Your task to perform on an android device: Open settings Image 0: 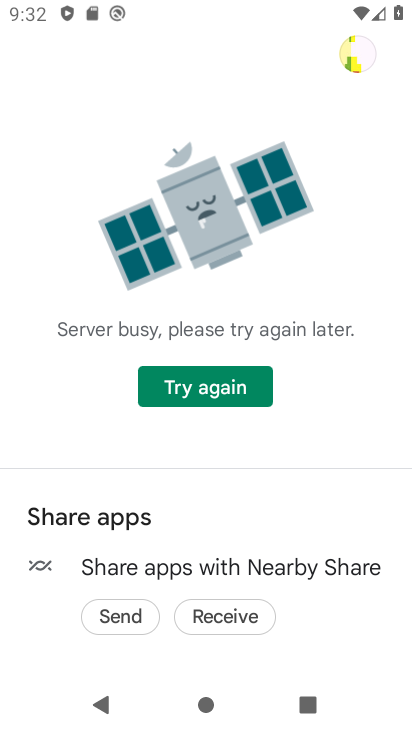
Step 0: press home button
Your task to perform on an android device: Open settings Image 1: 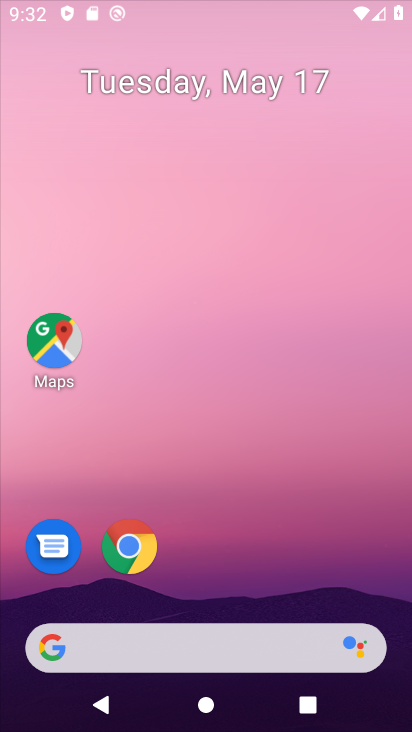
Step 1: press home button
Your task to perform on an android device: Open settings Image 2: 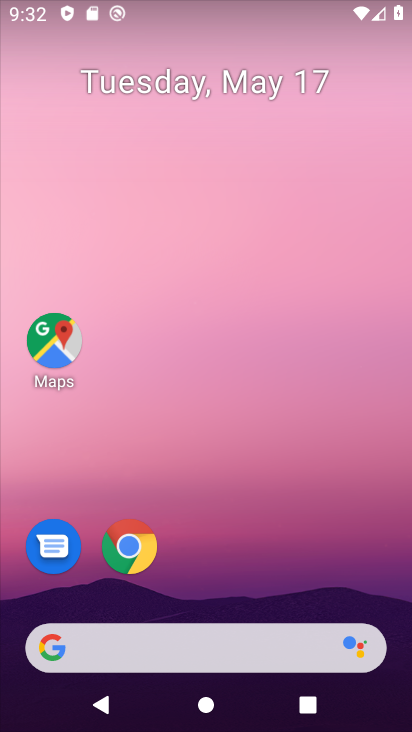
Step 2: drag from (245, 551) to (295, 167)
Your task to perform on an android device: Open settings Image 3: 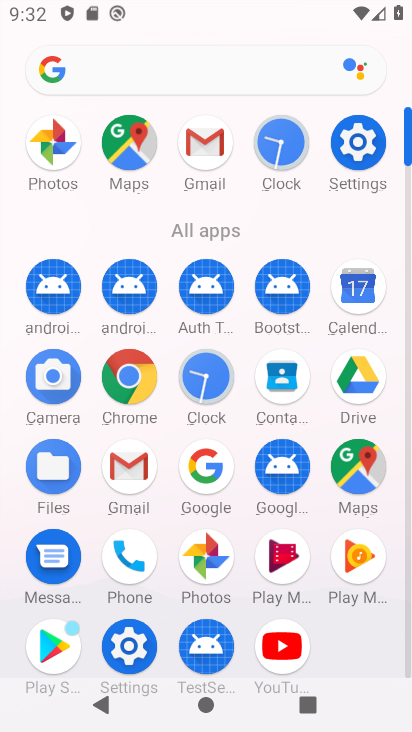
Step 3: click (352, 140)
Your task to perform on an android device: Open settings Image 4: 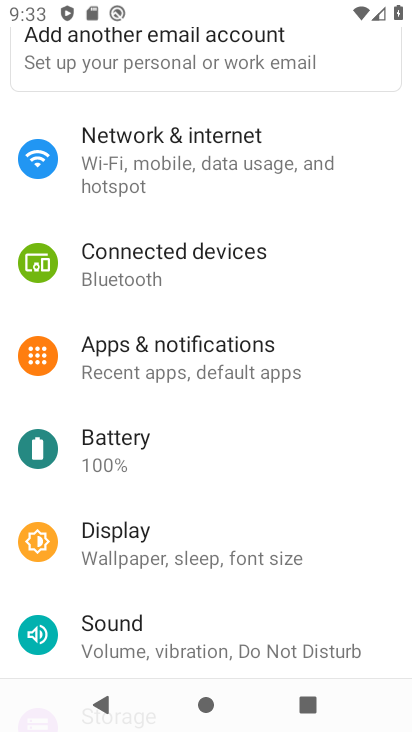
Step 4: task complete